Your task to perform on an android device: What is the news today? Image 0: 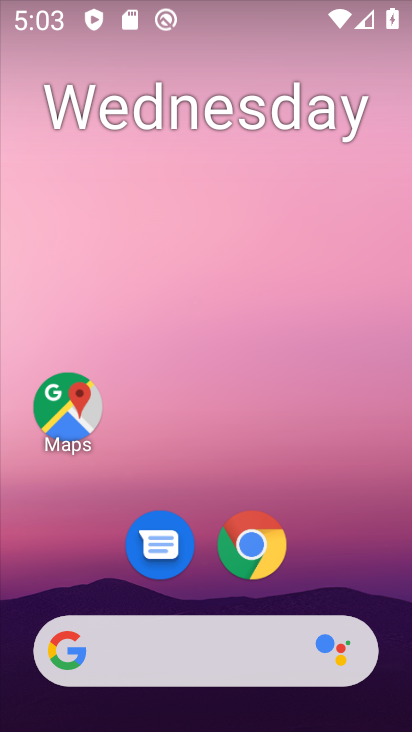
Step 0: drag from (324, 337) to (264, 55)
Your task to perform on an android device: What is the news today? Image 1: 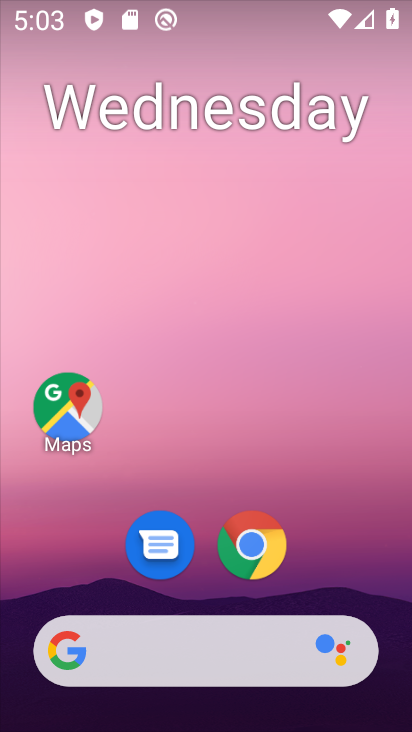
Step 1: drag from (337, 556) to (286, 114)
Your task to perform on an android device: What is the news today? Image 2: 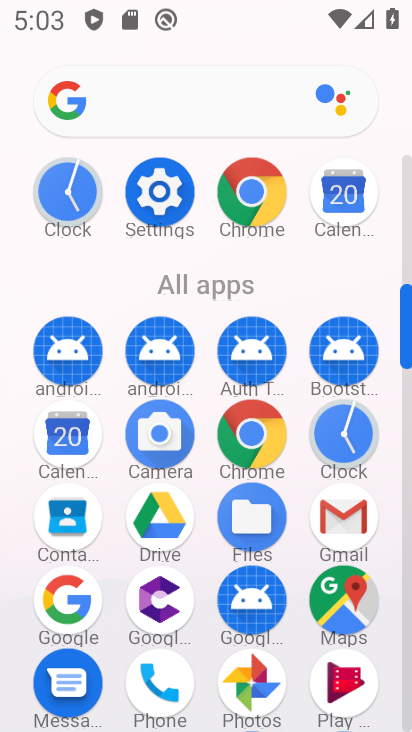
Step 2: click (248, 443)
Your task to perform on an android device: What is the news today? Image 3: 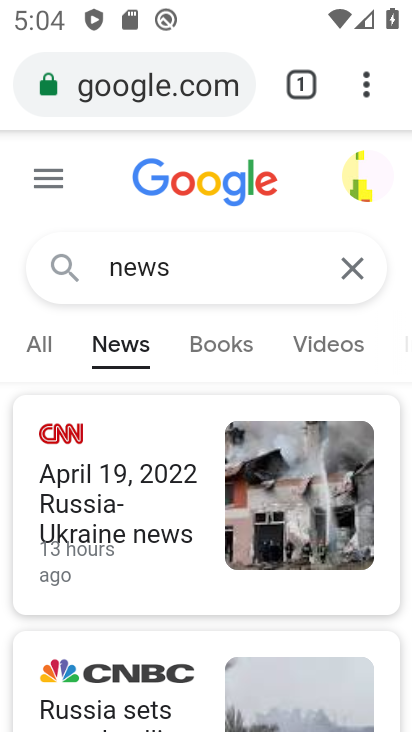
Step 3: task complete